Your task to perform on an android device: Open Youtube and go to "Your channel" Image 0: 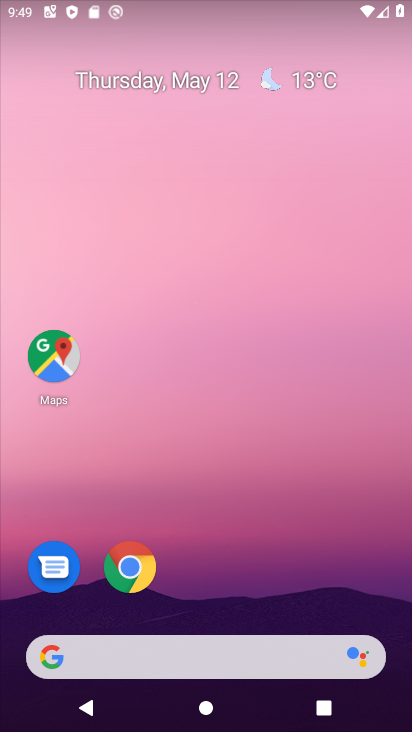
Step 0: drag from (207, 577) to (236, 100)
Your task to perform on an android device: Open Youtube and go to "Your channel" Image 1: 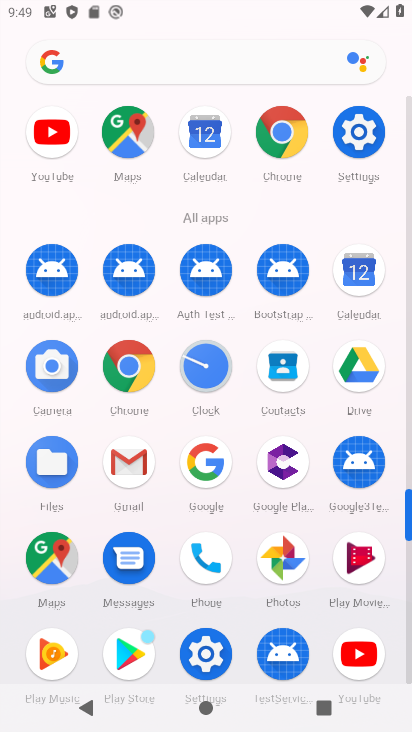
Step 1: click (386, 651)
Your task to perform on an android device: Open Youtube and go to "Your channel" Image 2: 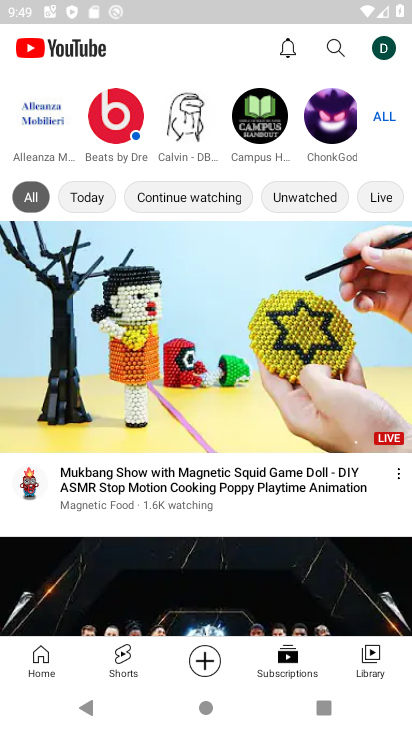
Step 2: click (390, 49)
Your task to perform on an android device: Open Youtube and go to "Your channel" Image 3: 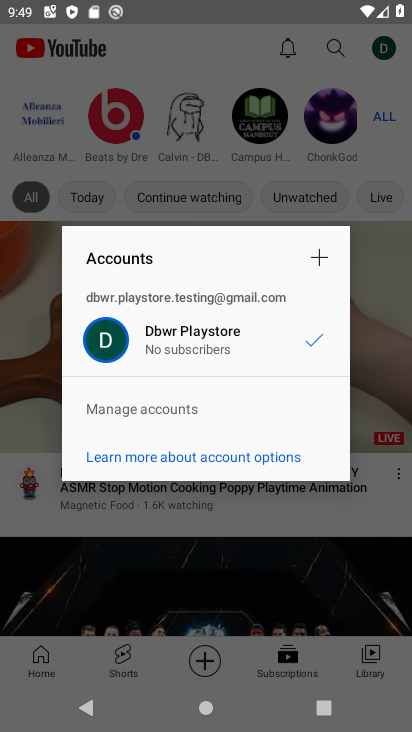
Step 3: click (390, 49)
Your task to perform on an android device: Open Youtube and go to "Your channel" Image 4: 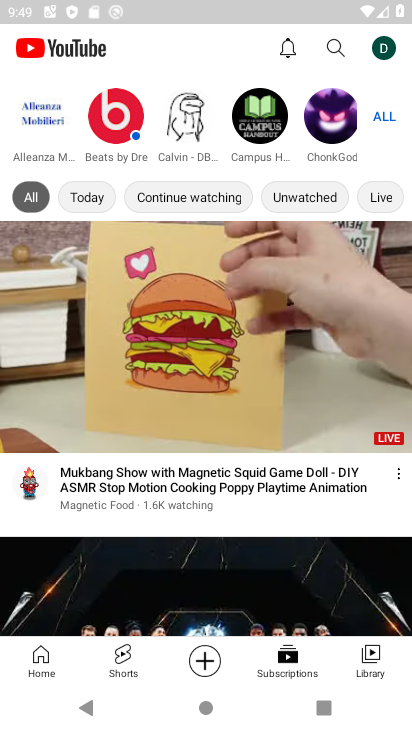
Step 4: click (382, 44)
Your task to perform on an android device: Open Youtube and go to "Your channel" Image 5: 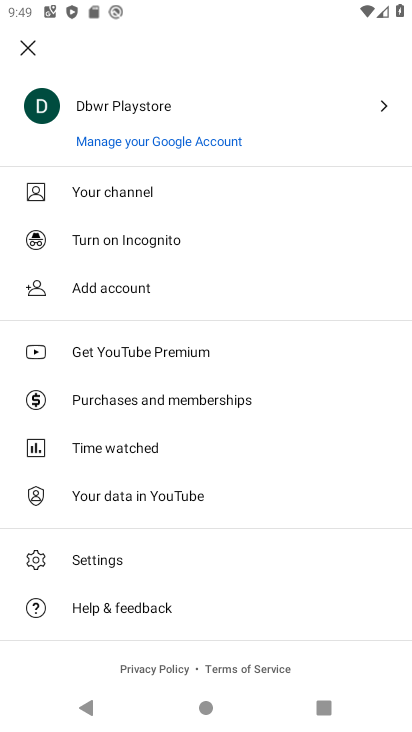
Step 5: click (149, 196)
Your task to perform on an android device: Open Youtube and go to "Your channel" Image 6: 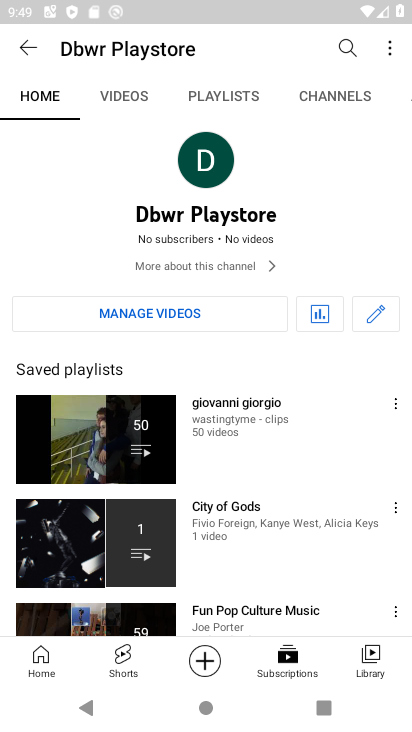
Step 6: task complete